Your task to perform on an android device: create a new album in the google photos Image 0: 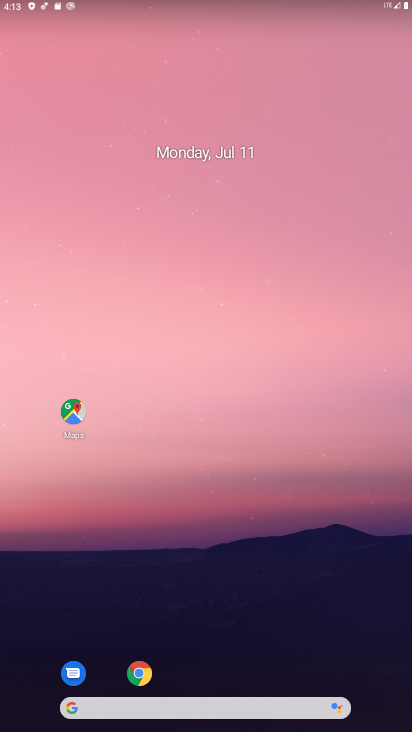
Step 0: drag from (392, 691) to (283, 188)
Your task to perform on an android device: create a new album in the google photos Image 1: 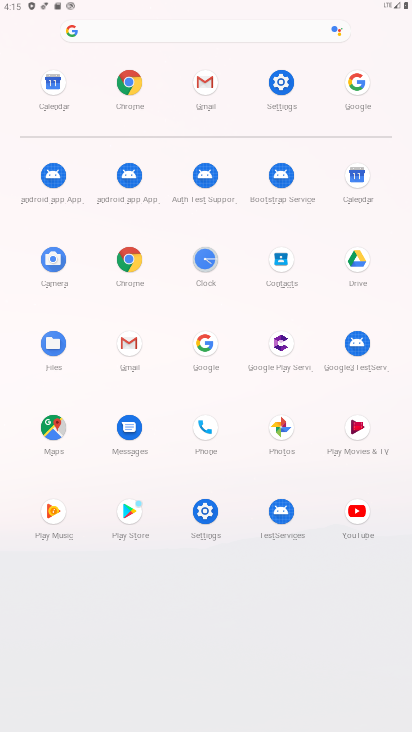
Step 1: click (290, 422)
Your task to perform on an android device: create a new album in the google photos Image 2: 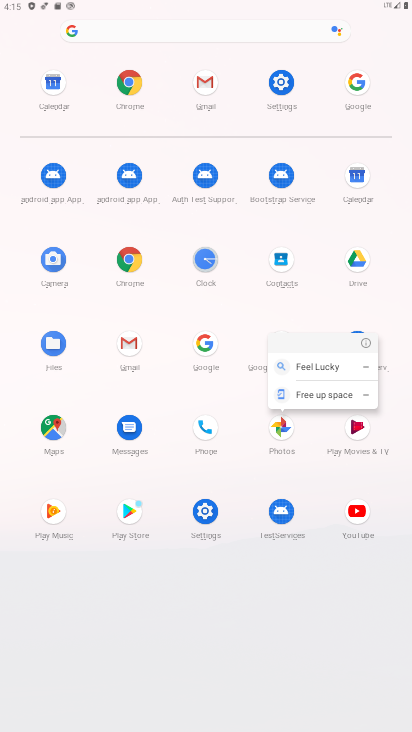
Step 2: click (282, 425)
Your task to perform on an android device: create a new album in the google photos Image 3: 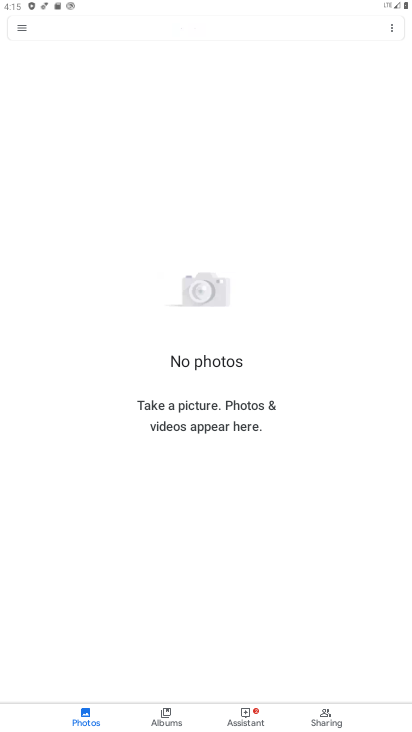
Step 3: task complete